Your task to perform on an android device: turn smart compose on in the gmail app Image 0: 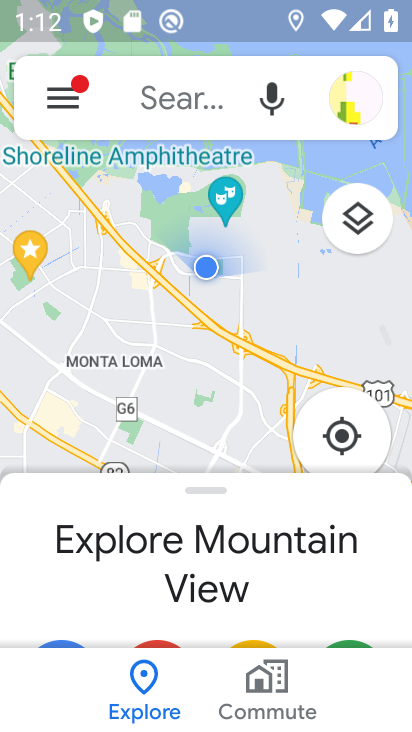
Step 0: press home button
Your task to perform on an android device: turn smart compose on in the gmail app Image 1: 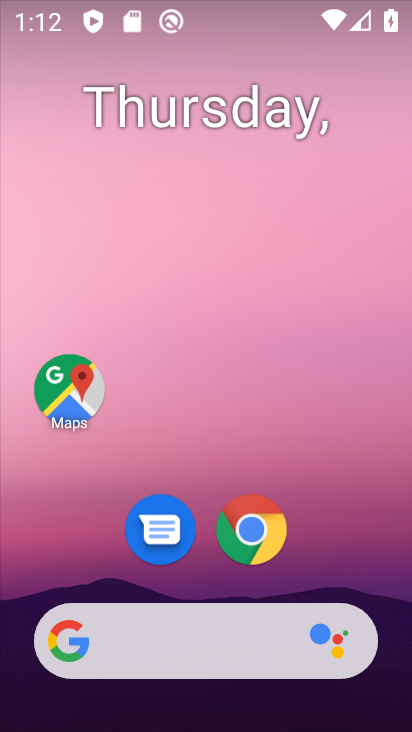
Step 1: drag from (196, 713) to (192, 118)
Your task to perform on an android device: turn smart compose on in the gmail app Image 2: 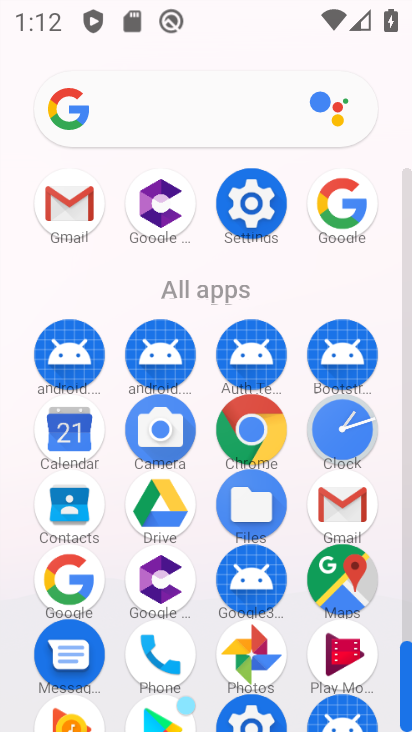
Step 2: click (72, 216)
Your task to perform on an android device: turn smart compose on in the gmail app Image 3: 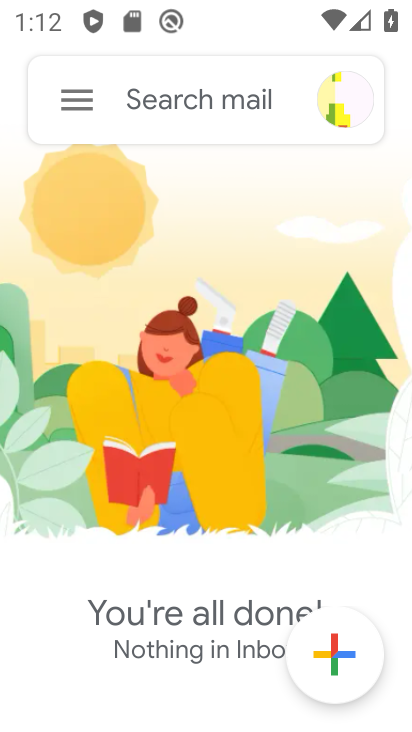
Step 3: click (79, 96)
Your task to perform on an android device: turn smart compose on in the gmail app Image 4: 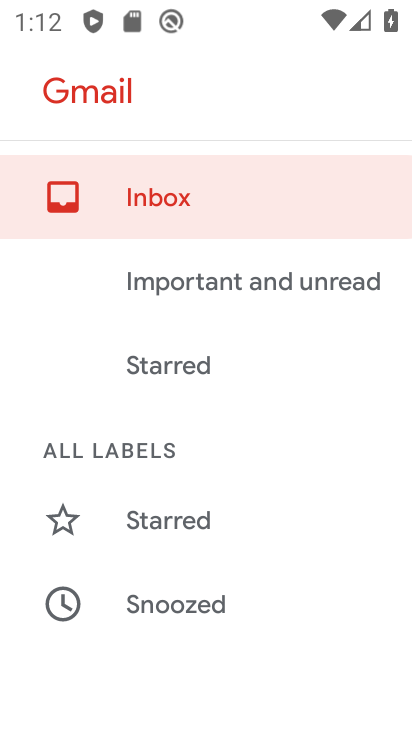
Step 4: drag from (166, 637) to (191, 201)
Your task to perform on an android device: turn smart compose on in the gmail app Image 5: 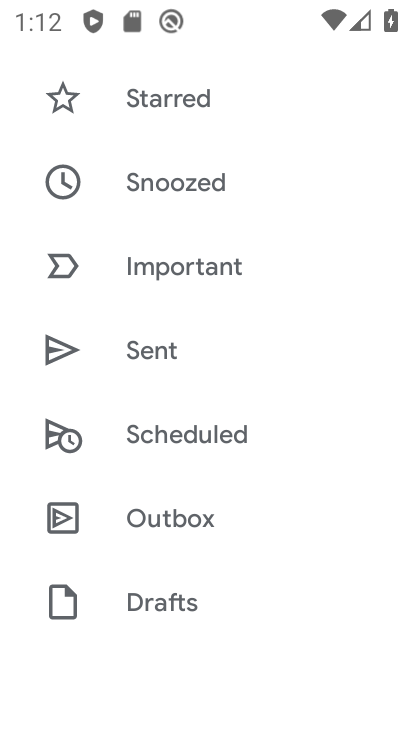
Step 5: drag from (156, 609) to (172, 133)
Your task to perform on an android device: turn smart compose on in the gmail app Image 6: 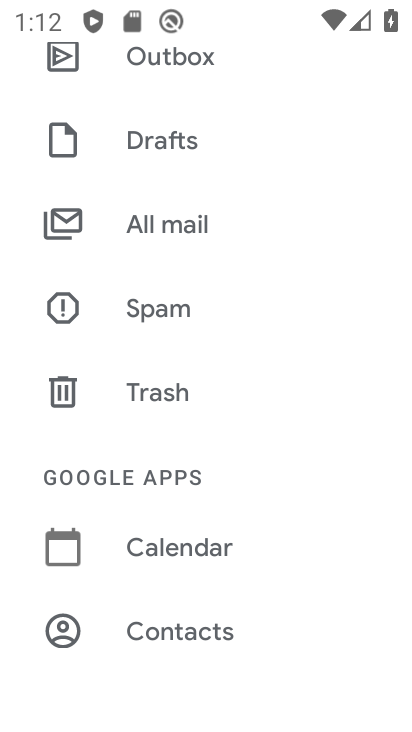
Step 6: drag from (157, 620) to (159, 123)
Your task to perform on an android device: turn smart compose on in the gmail app Image 7: 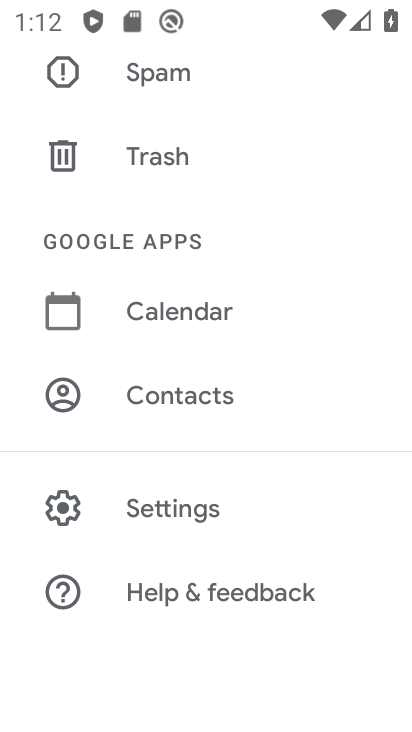
Step 7: click (156, 507)
Your task to perform on an android device: turn smart compose on in the gmail app Image 8: 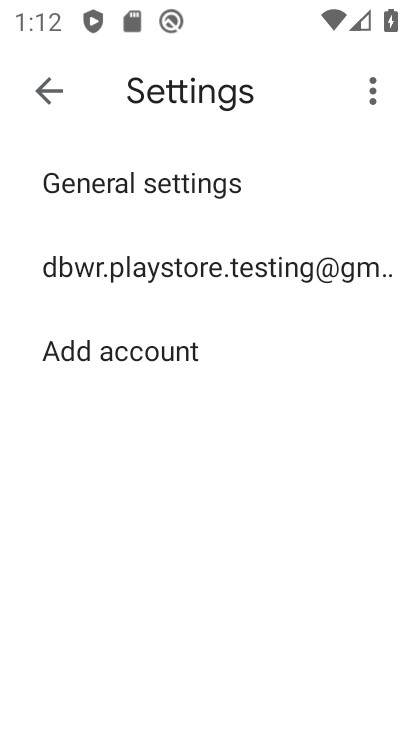
Step 8: click (192, 268)
Your task to perform on an android device: turn smart compose on in the gmail app Image 9: 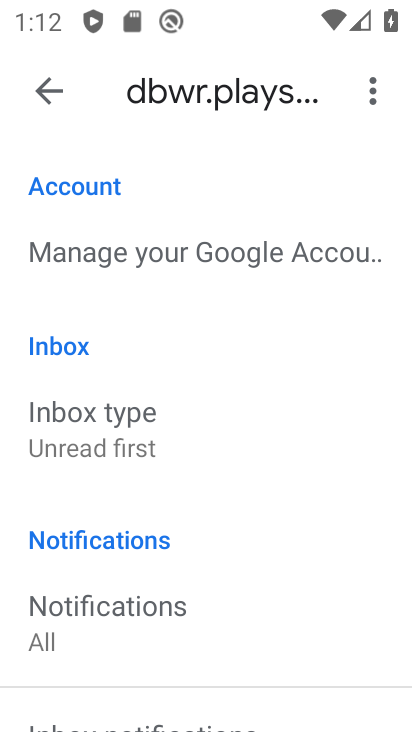
Step 9: task complete